Your task to perform on an android device: Search for the best rated Bluetooth earbuds on Ali express Image 0: 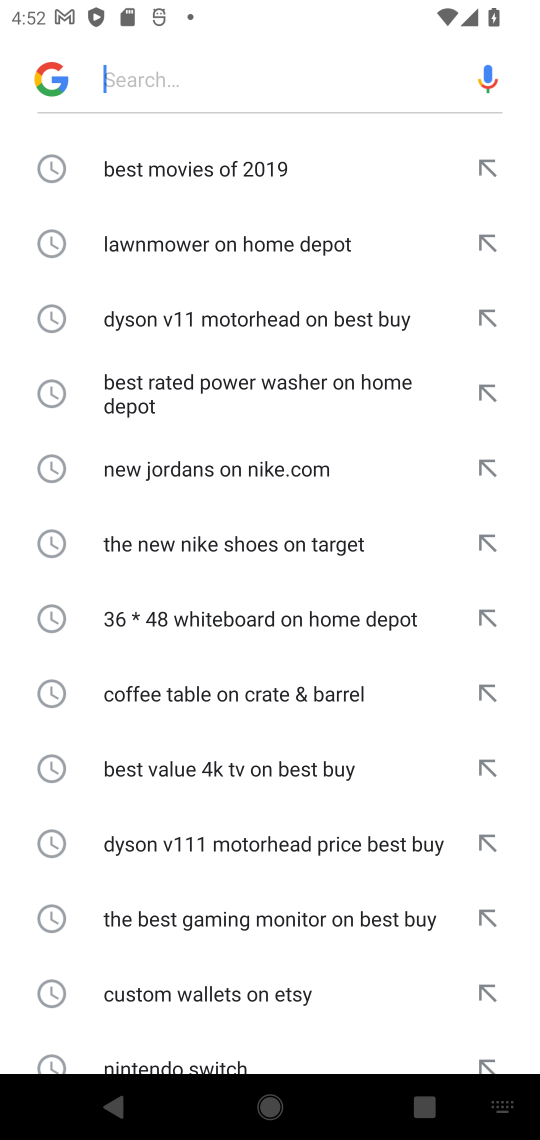
Step 0: press home button
Your task to perform on an android device: Search for the best rated Bluetooth earbuds on Ali express Image 1: 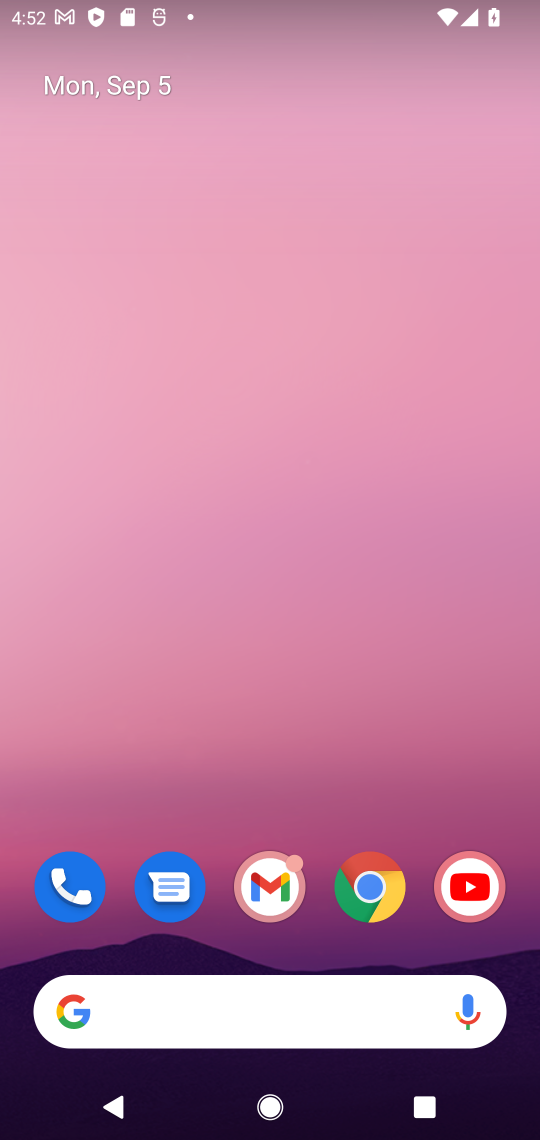
Step 1: click (354, 16)
Your task to perform on an android device: Search for the best rated Bluetooth earbuds on Ali express Image 2: 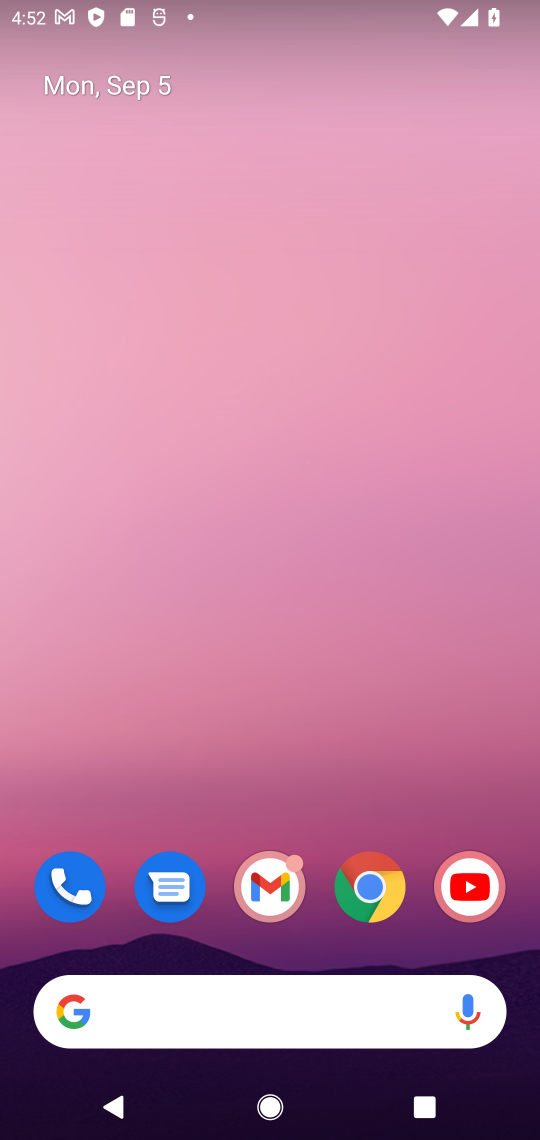
Step 2: drag from (420, 170) to (406, 45)
Your task to perform on an android device: Search for the best rated Bluetooth earbuds on Ali express Image 3: 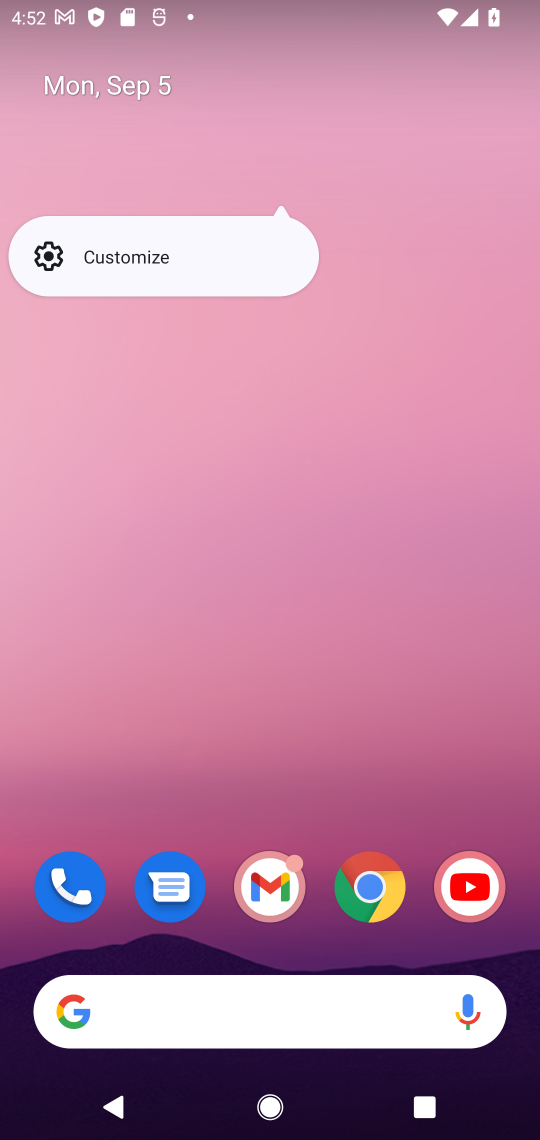
Step 3: click (423, 753)
Your task to perform on an android device: Search for the best rated Bluetooth earbuds on Ali express Image 4: 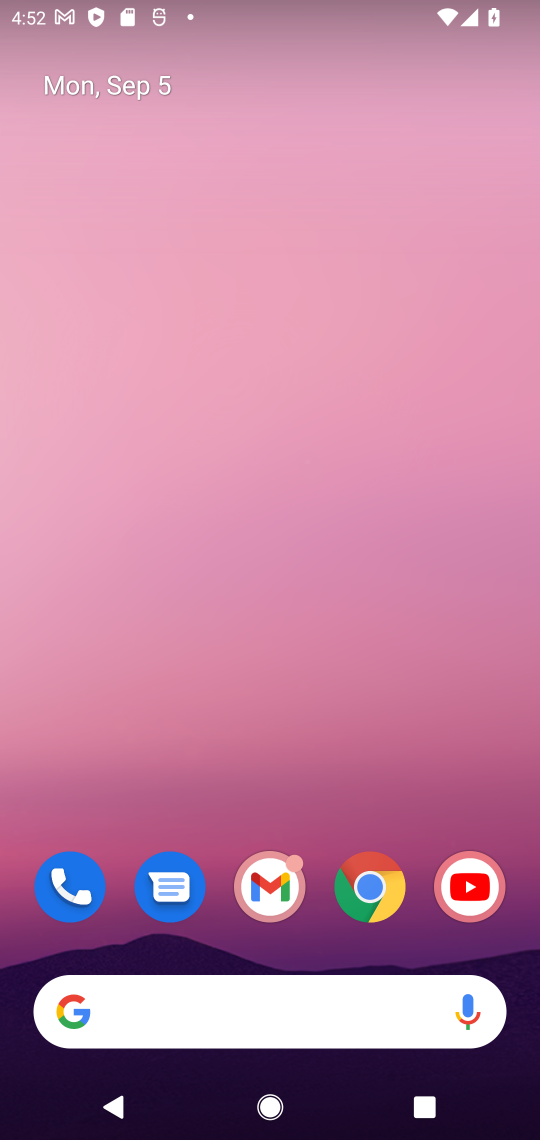
Step 4: drag from (418, 737) to (367, 10)
Your task to perform on an android device: Search for the best rated Bluetooth earbuds on Ali express Image 5: 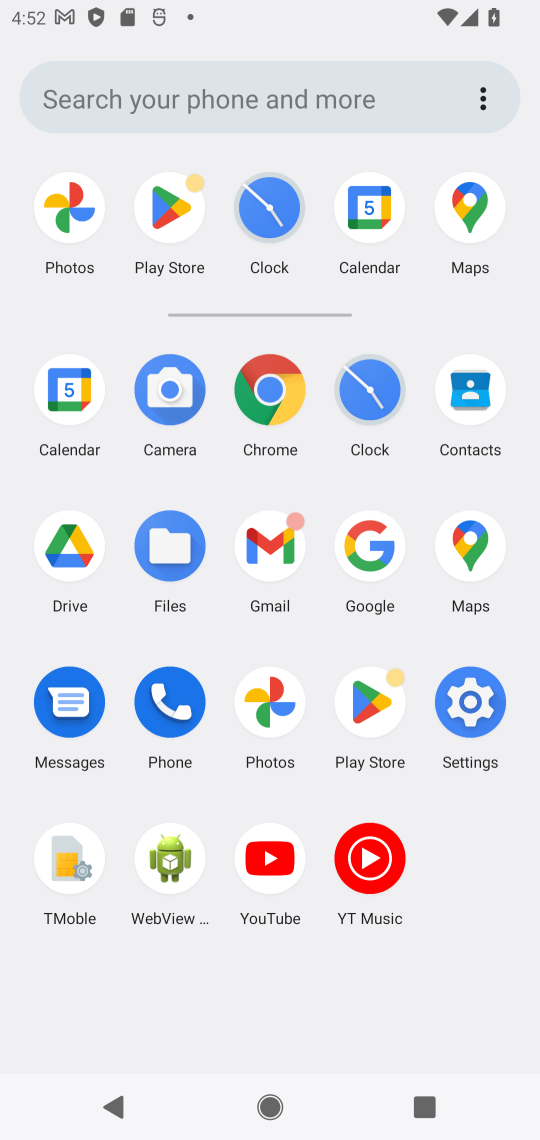
Step 5: click (276, 392)
Your task to perform on an android device: Search for the best rated Bluetooth earbuds on Ali express Image 6: 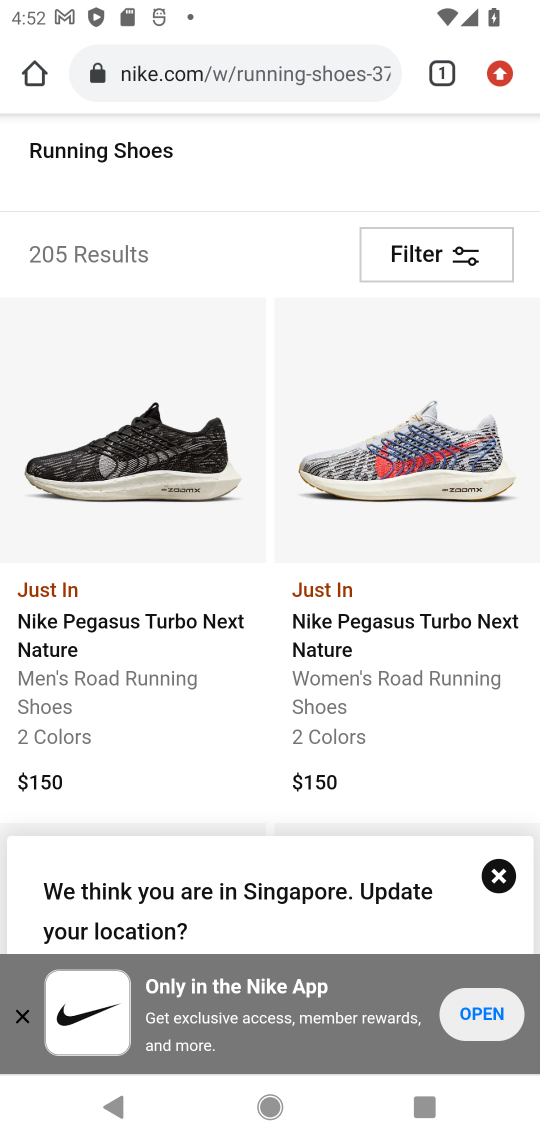
Step 6: click (191, 63)
Your task to perform on an android device: Search for the best rated Bluetooth earbuds on Ali express Image 7: 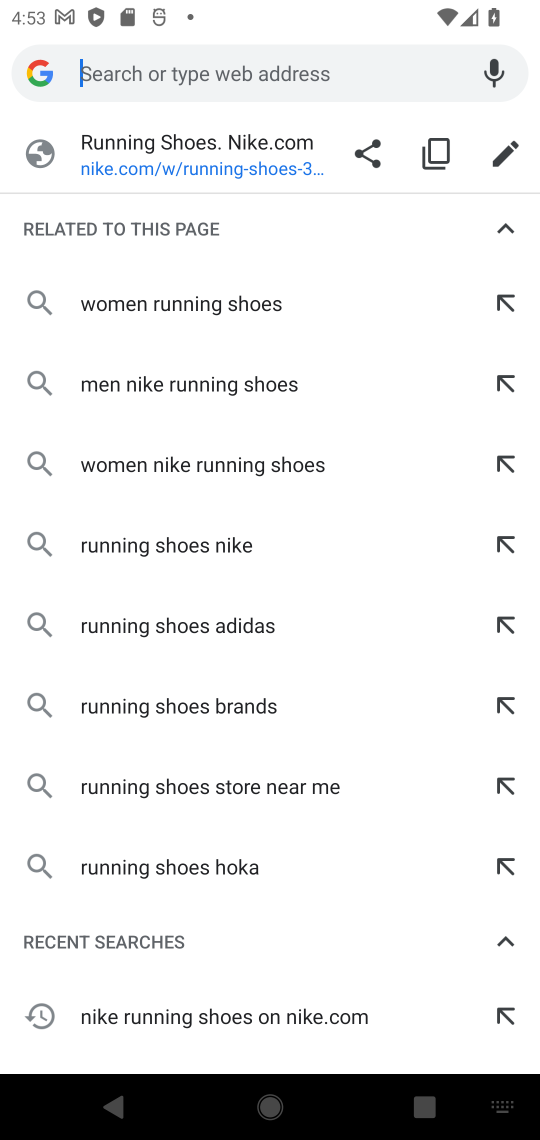
Step 7: type "best rated Bluetooth earbuds on Ali express"
Your task to perform on an android device: Search for the best rated Bluetooth earbuds on Ali express Image 8: 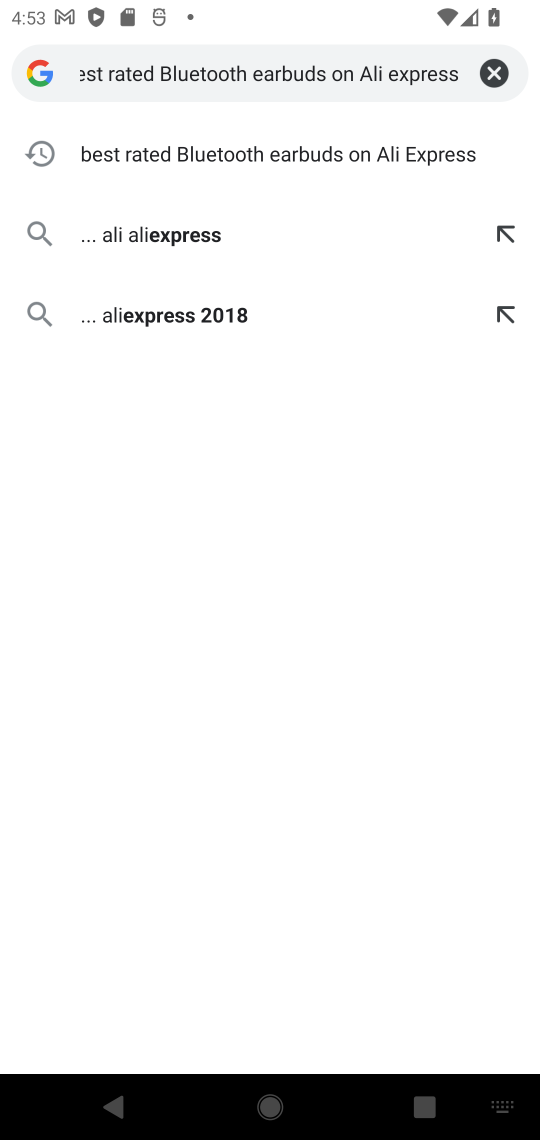
Step 8: press enter
Your task to perform on an android device: Search for the best rated Bluetooth earbuds on Ali express Image 9: 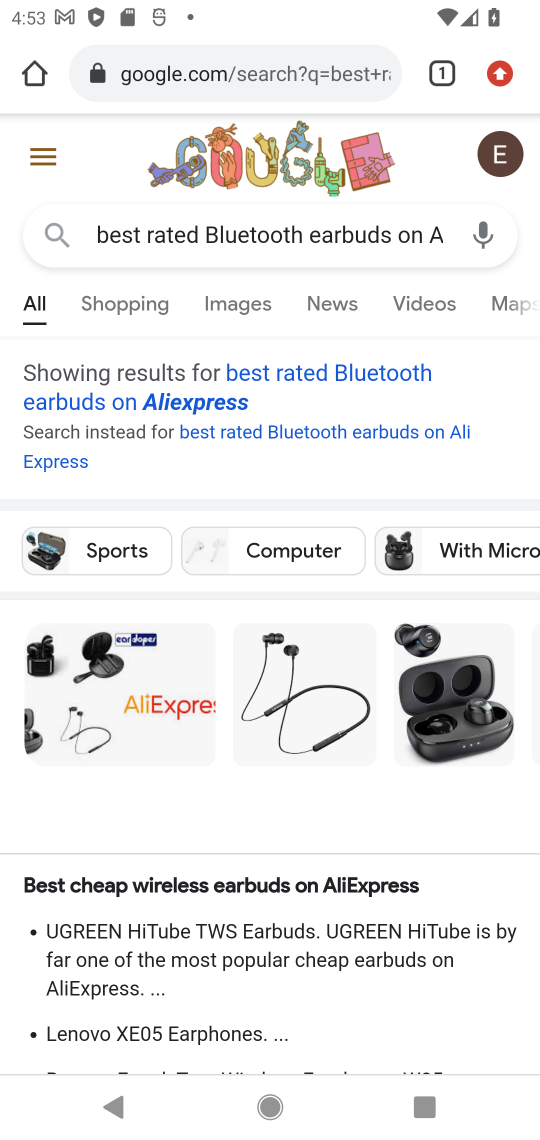
Step 9: click (195, 402)
Your task to perform on an android device: Search for the best rated Bluetooth earbuds on Ali express Image 10: 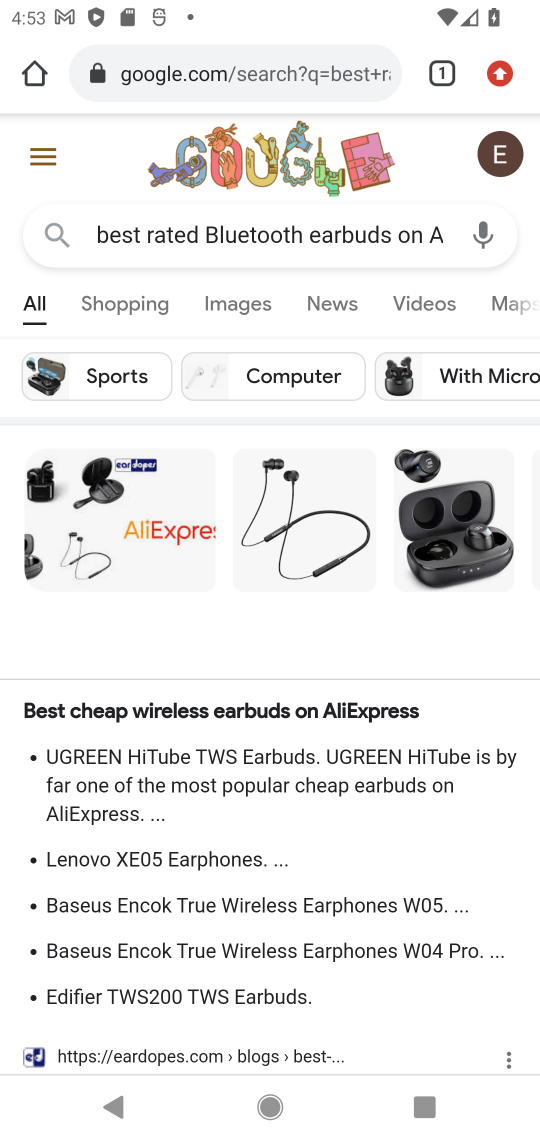
Step 10: click (421, 9)
Your task to perform on an android device: Search for the best rated Bluetooth earbuds on Ali express Image 11: 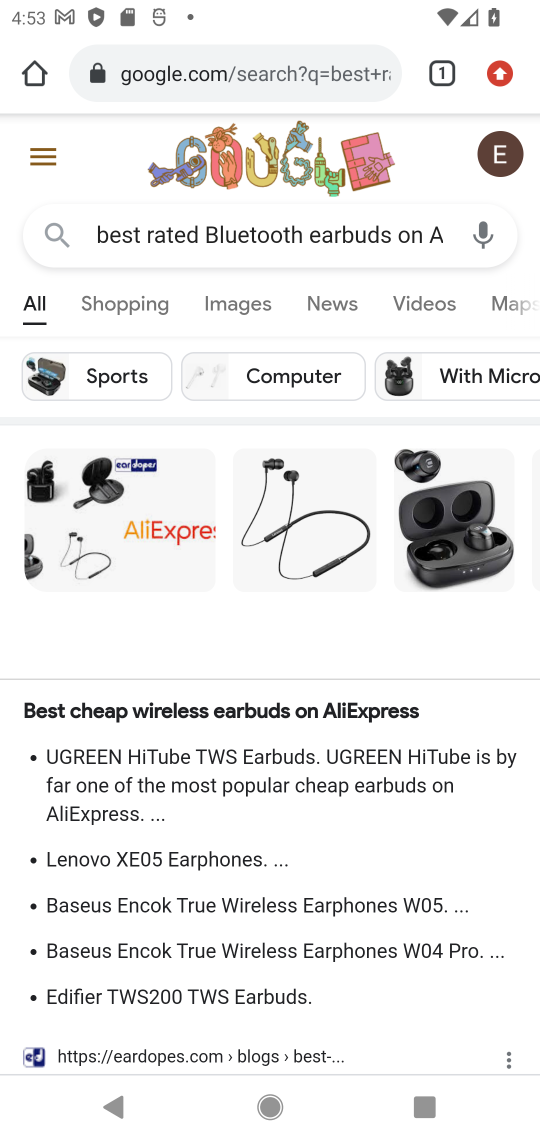
Step 11: drag from (251, 791) to (312, 108)
Your task to perform on an android device: Search for the best rated Bluetooth earbuds on Ali express Image 12: 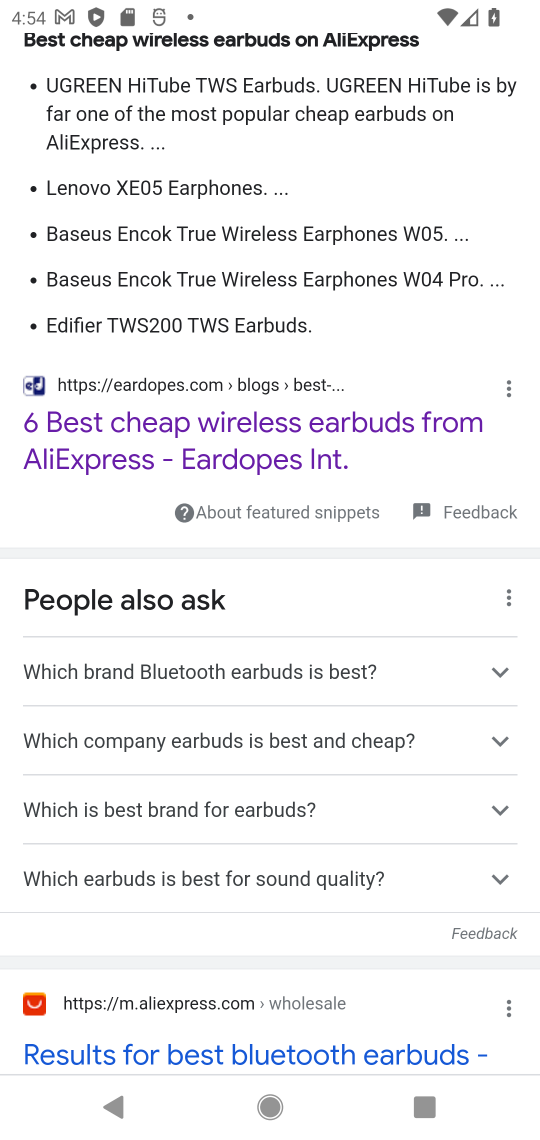
Step 12: drag from (284, 1021) to (328, 517)
Your task to perform on an android device: Search for the best rated Bluetooth earbuds on Ali express Image 13: 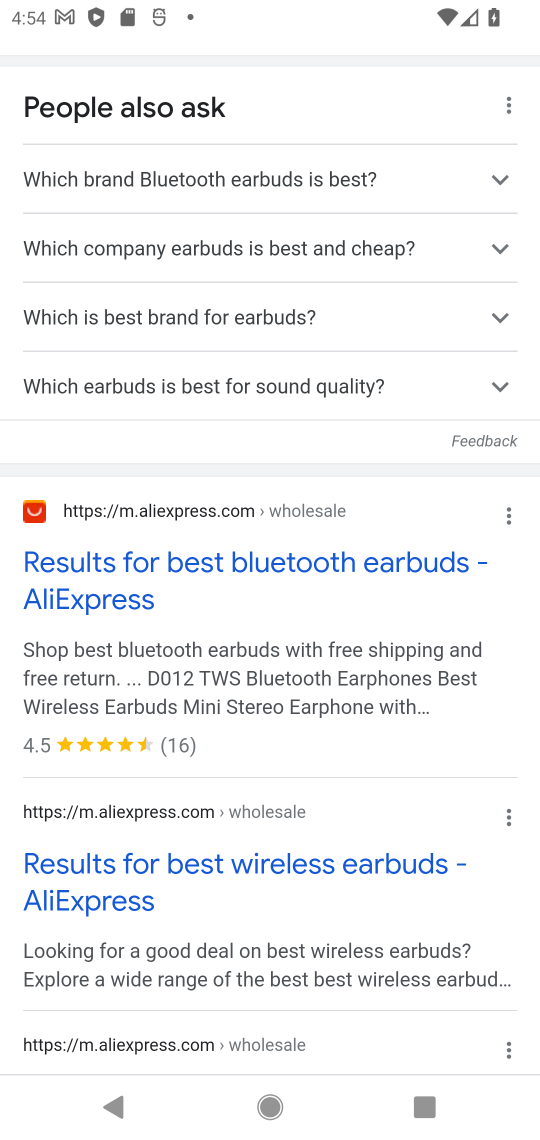
Step 13: click (236, 579)
Your task to perform on an android device: Search for the best rated Bluetooth earbuds on Ali express Image 14: 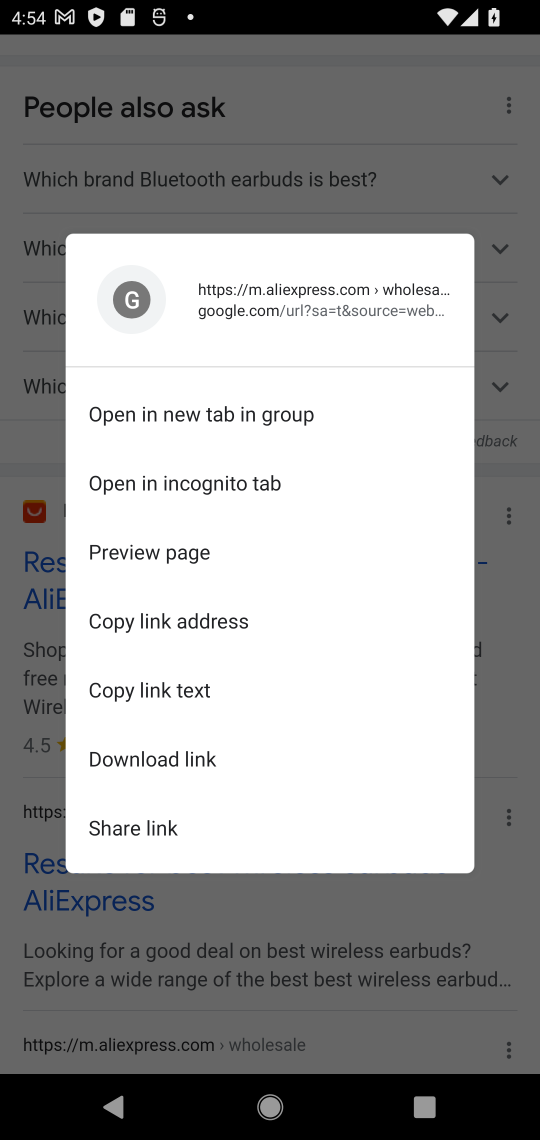
Step 14: click (373, 935)
Your task to perform on an android device: Search for the best rated Bluetooth earbuds on Ali express Image 15: 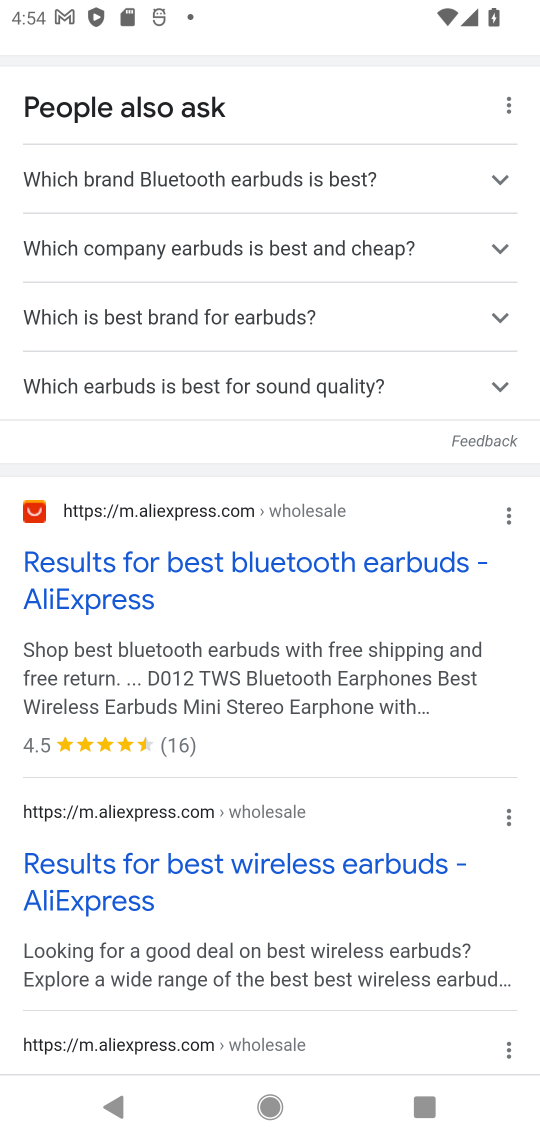
Step 15: click (284, 564)
Your task to perform on an android device: Search for the best rated Bluetooth earbuds on Ali express Image 16: 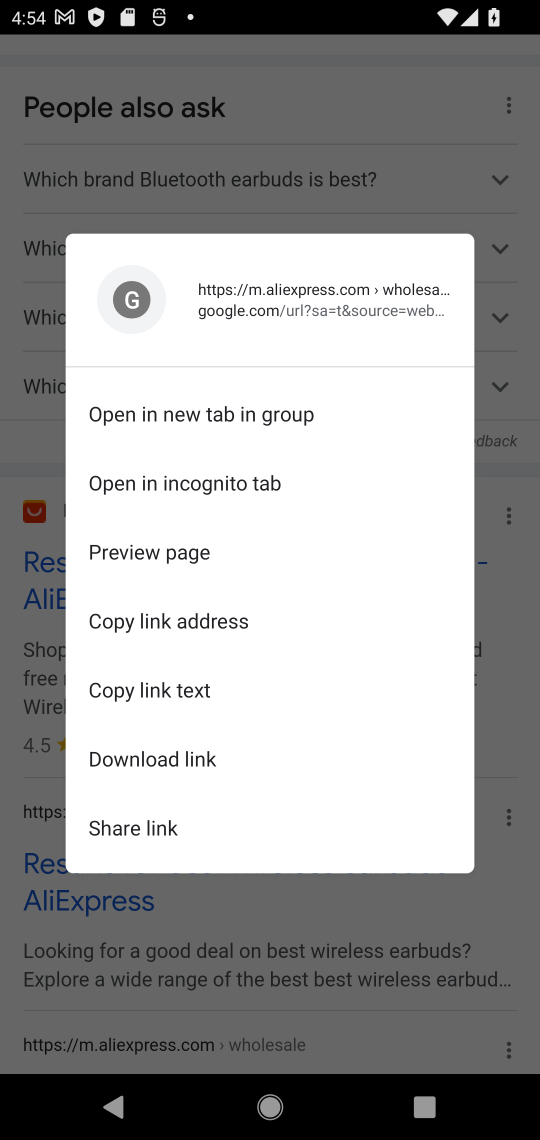
Step 16: click (141, 222)
Your task to perform on an android device: Search for the best rated Bluetooth earbuds on Ali express Image 17: 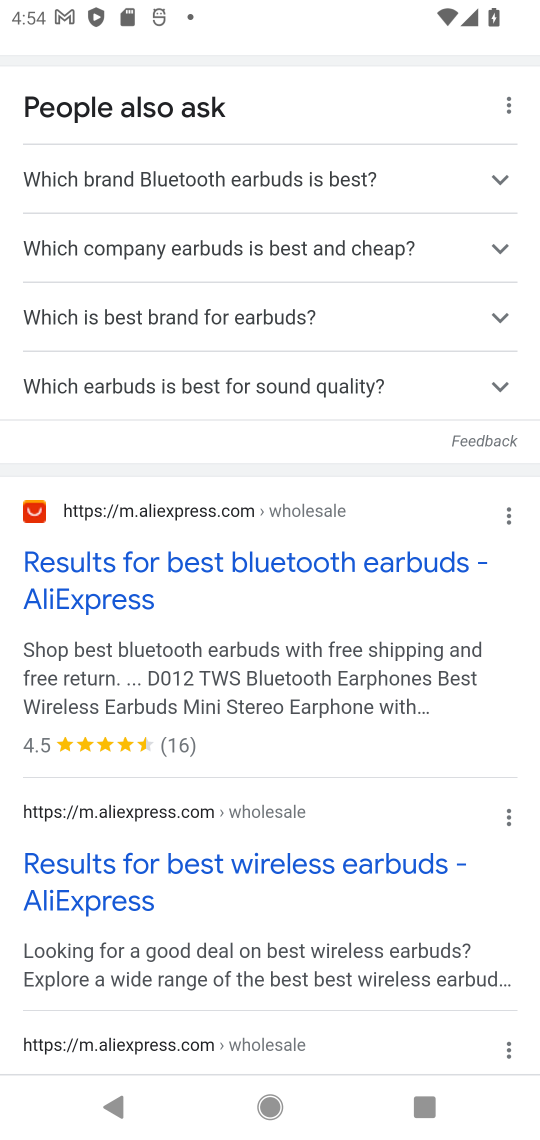
Step 17: click (269, 561)
Your task to perform on an android device: Search for the best rated Bluetooth earbuds on Ali express Image 18: 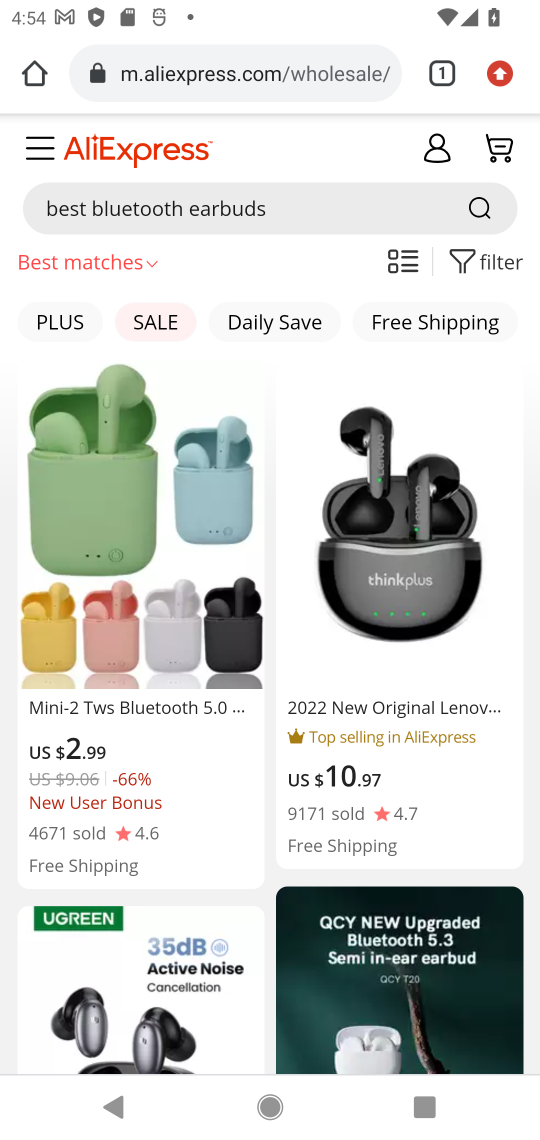
Step 18: task complete